Your task to perform on an android device: Add rayovac triple a to the cart on costco, then select checkout. Image 0: 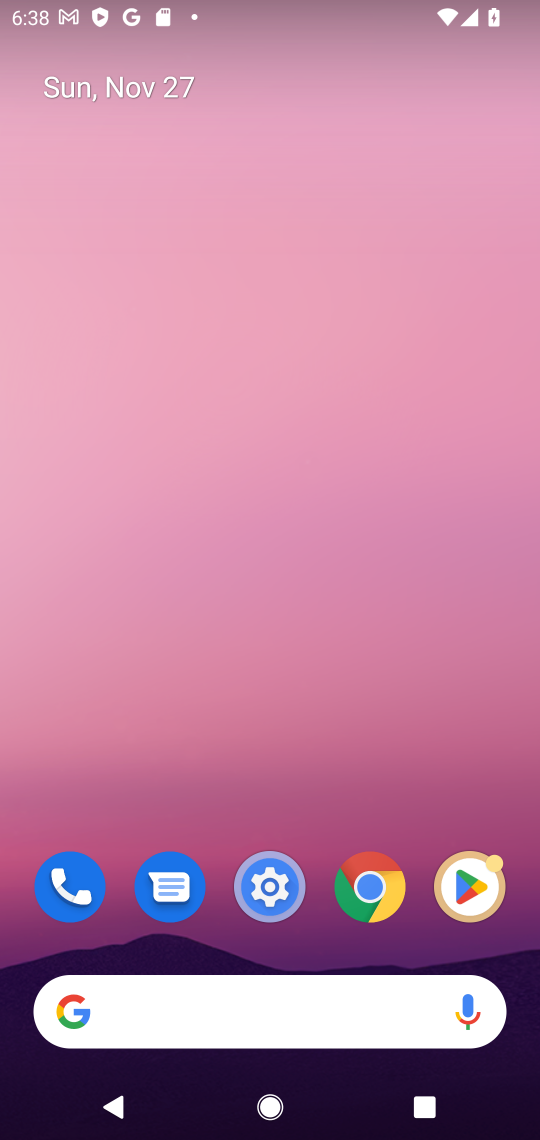
Step 0: click (340, 1030)
Your task to perform on an android device: Add rayovac triple a to the cart on costco, then select checkout. Image 1: 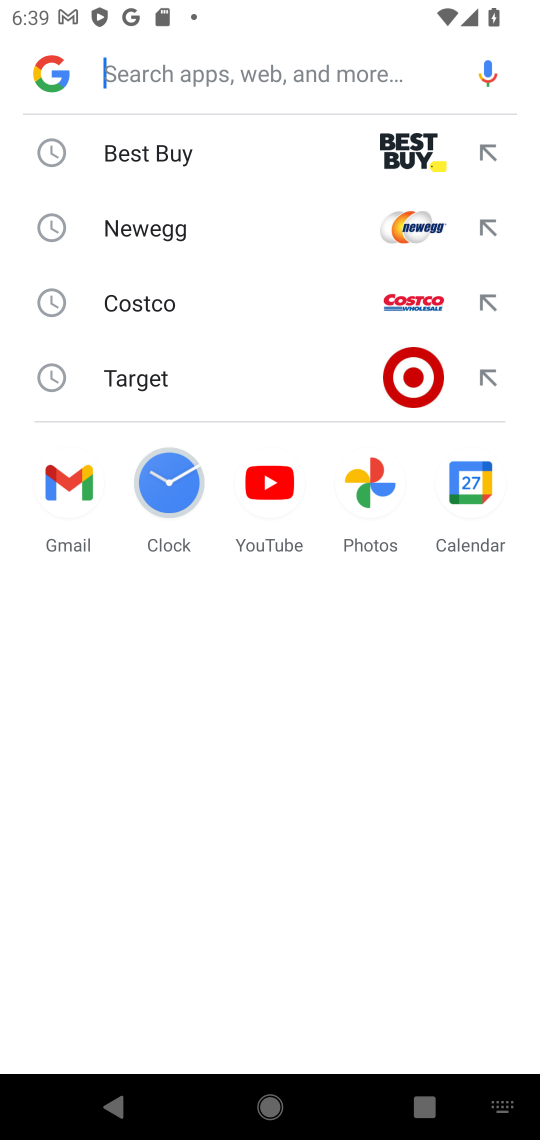
Step 1: click (371, 290)
Your task to perform on an android device: Add rayovac triple a to the cart on costco, then select checkout. Image 2: 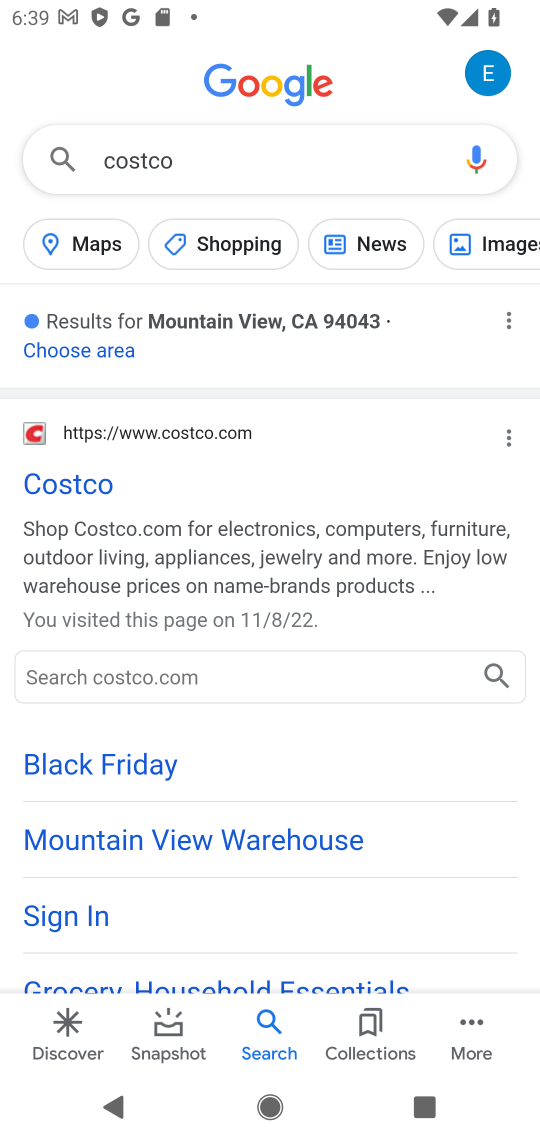
Step 2: click (66, 495)
Your task to perform on an android device: Add rayovac triple a to the cart on costco, then select checkout. Image 3: 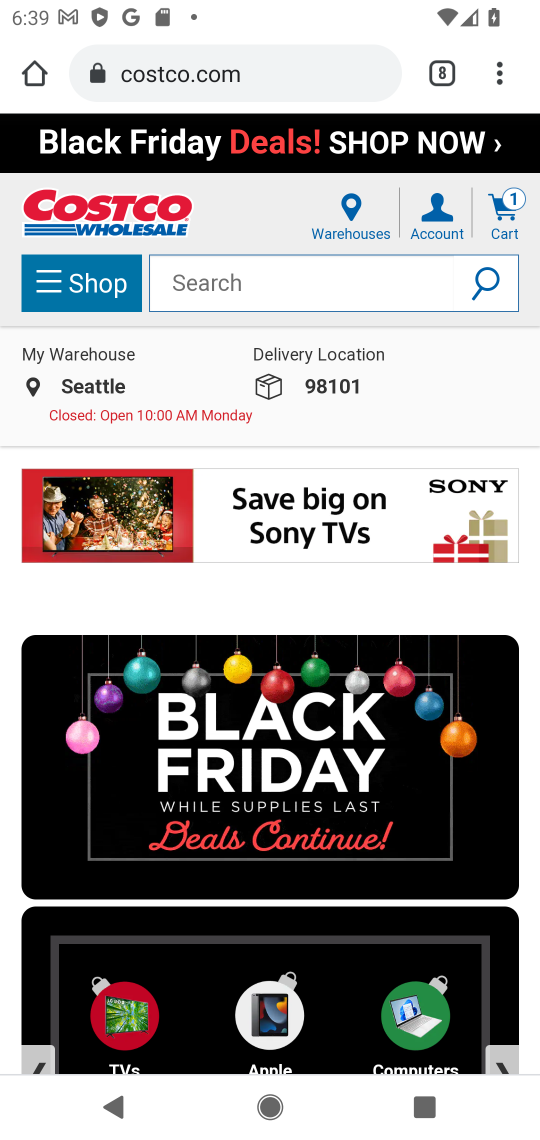
Step 3: click (195, 277)
Your task to perform on an android device: Add rayovac triple a to the cart on costco, then select checkout. Image 4: 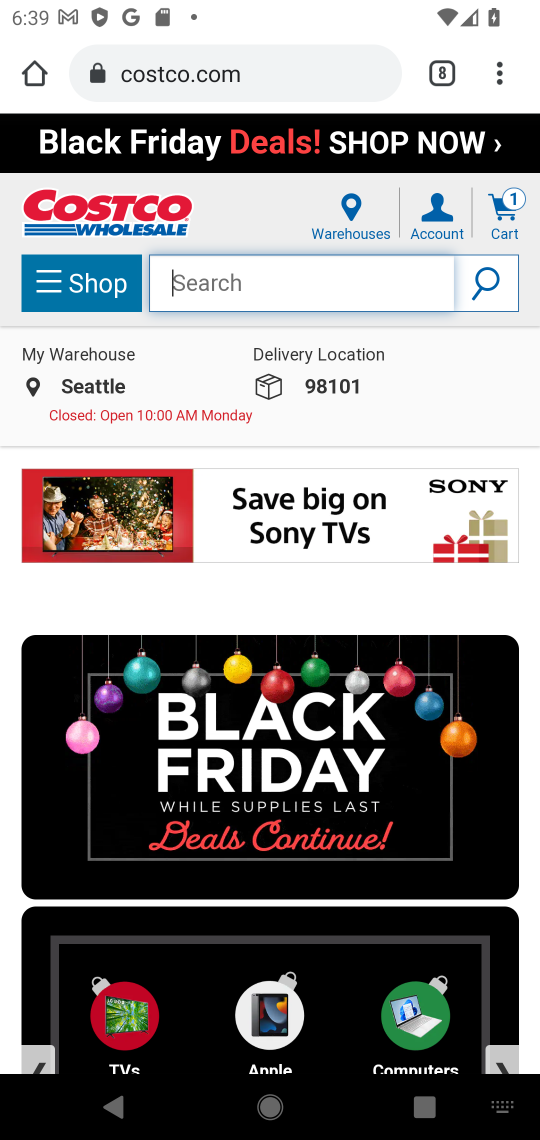
Step 4: type "rayovac"
Your task to perform on an android device: Add rayovac triple a to the cart on costco, then select checkout. Image 5: 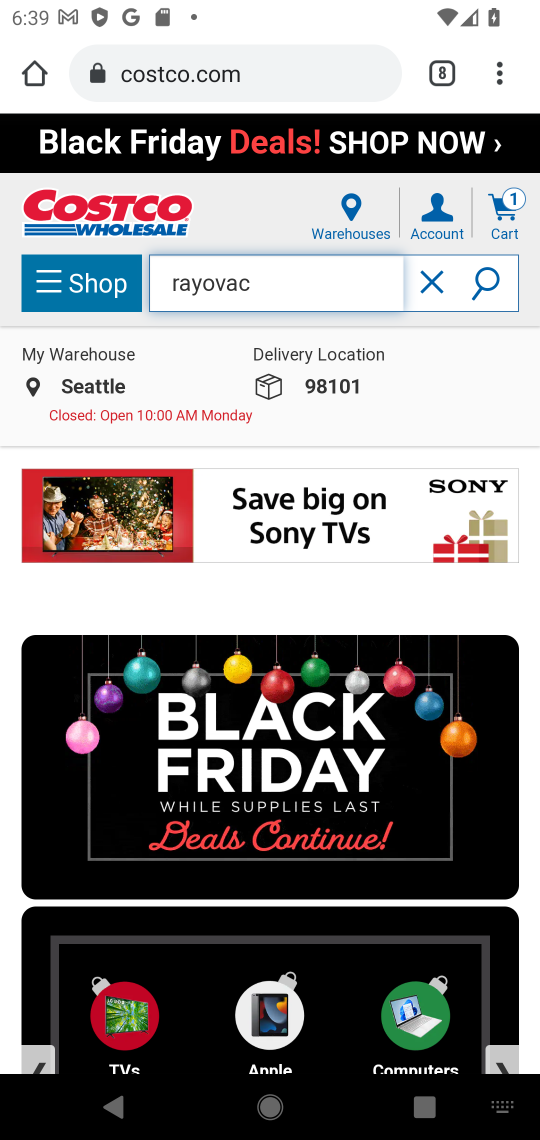
Step 5: click (480, 304)
Your task to perform on an android device: Add rayovac triple a to the cart on costco, then select checkout. Image 6: 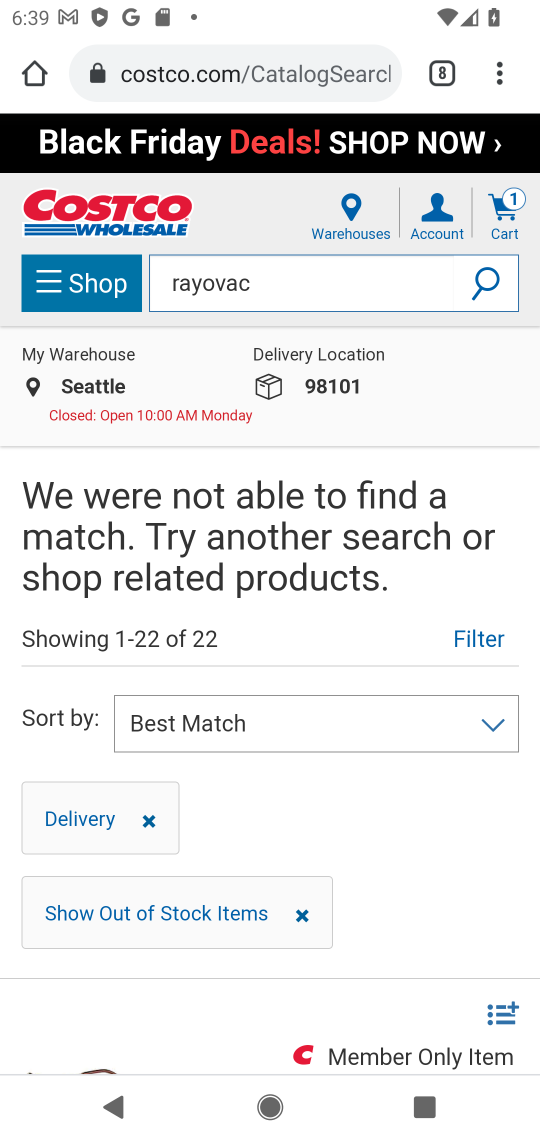
Step 6: drag from (365, 644) to (374, 394)
Your task to perform on an android device: Add rayovac triple a to the cart on costco, then select checkout. Image 7: 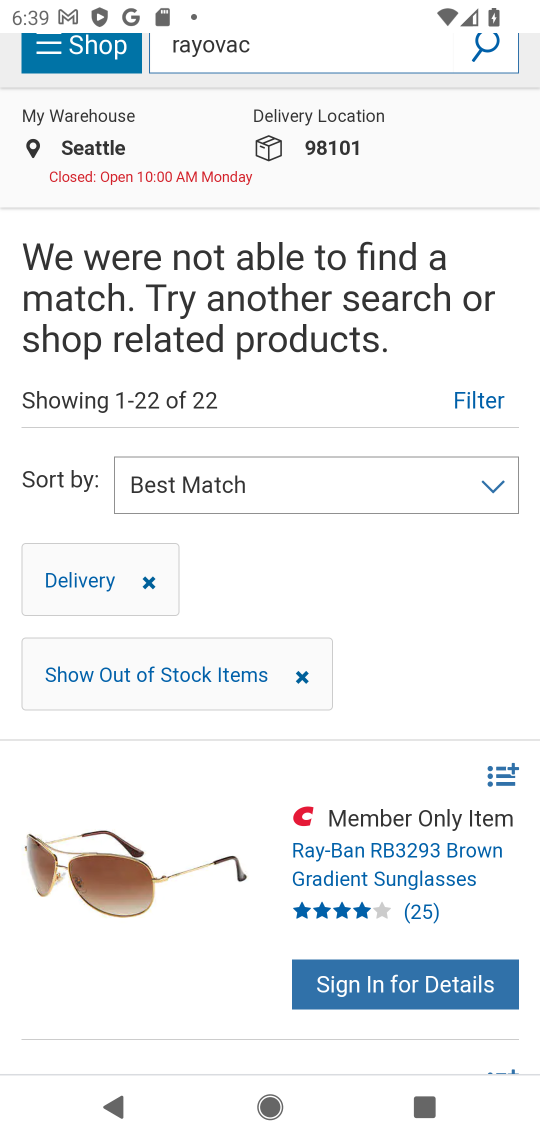
Step 7: drag from (441, 719) to (433, 509)
Your task to perform on an android device: Add rayovac triple a to the cart on costco, then select checkout. Image 8: 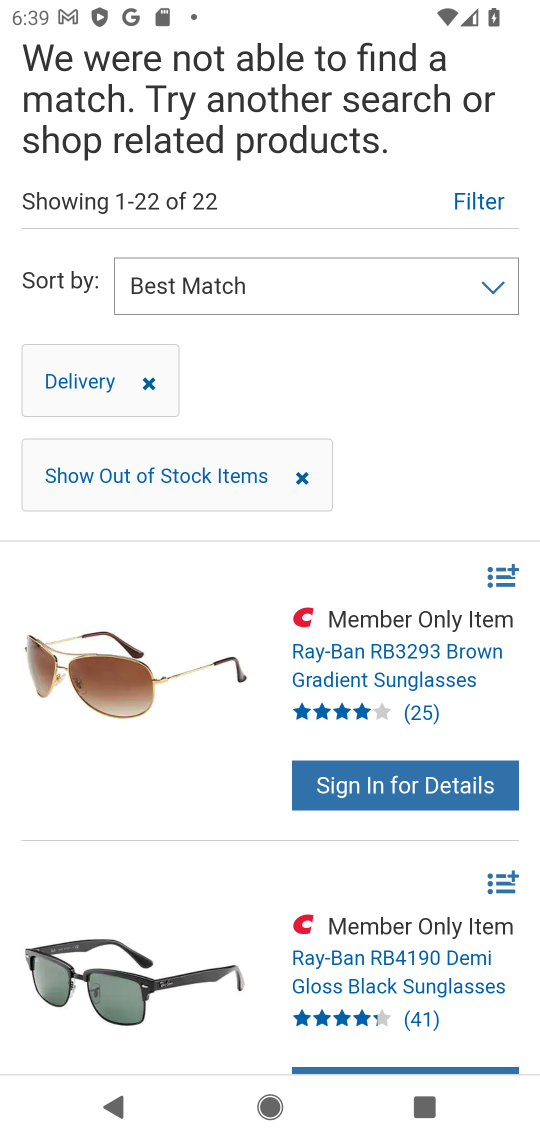
Step 8: click (334, 785)
Your task to perform on an android device: Add rayovac triple a to the cart on costco, then select checkout. Image 9: 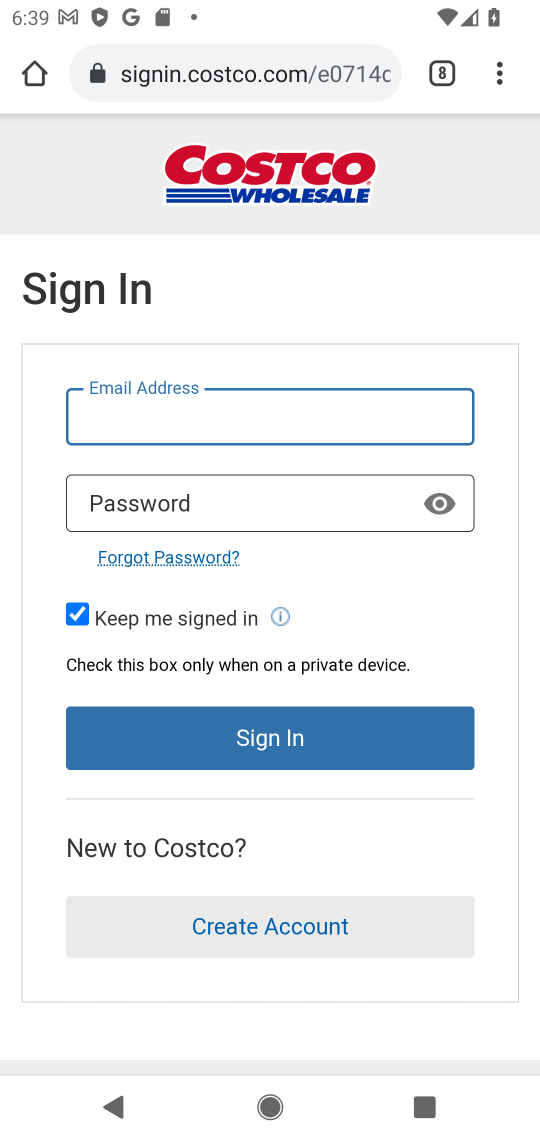
Step 9: task complete